Your task to perform on an android device: Go to notification settings Image 0: 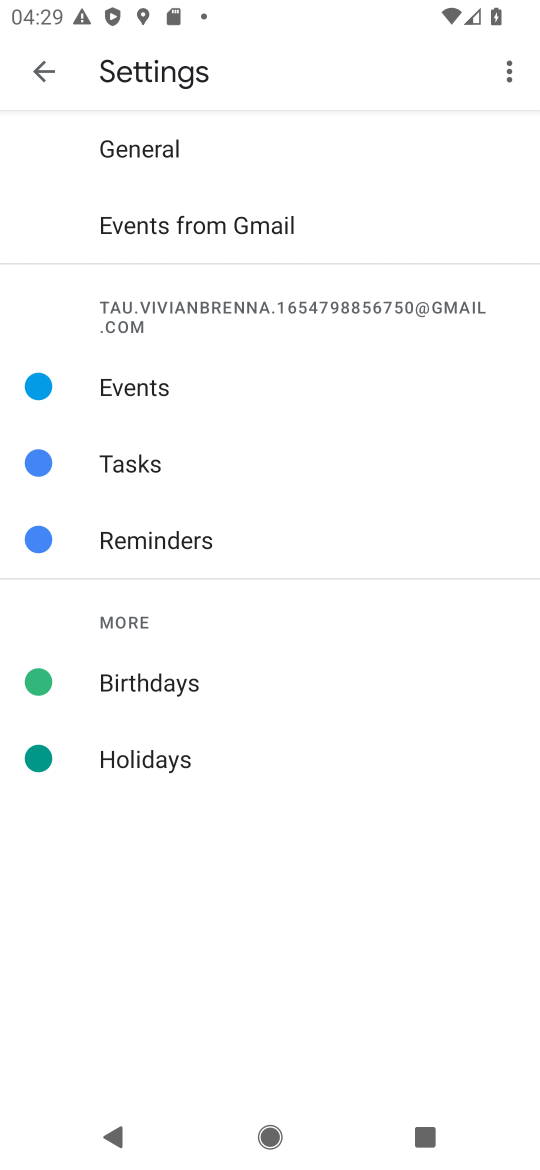
Step 0: press home button
Your task to perform on an android device: Go to notification settings Image 1: 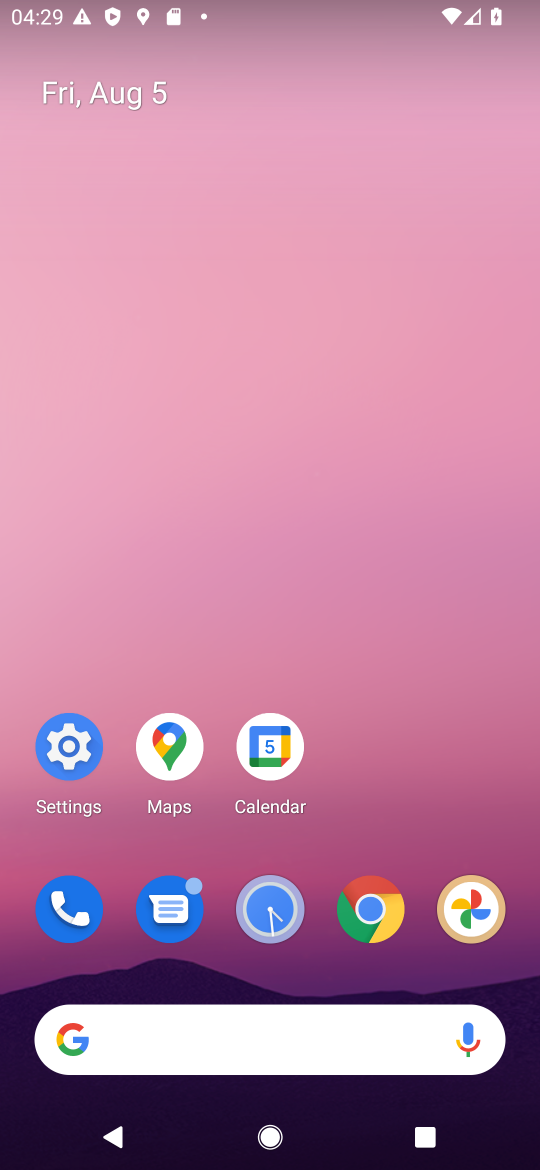
Step 1: click (62, 741)
Your task to perform on an android device: Go to notification settings Image 2: 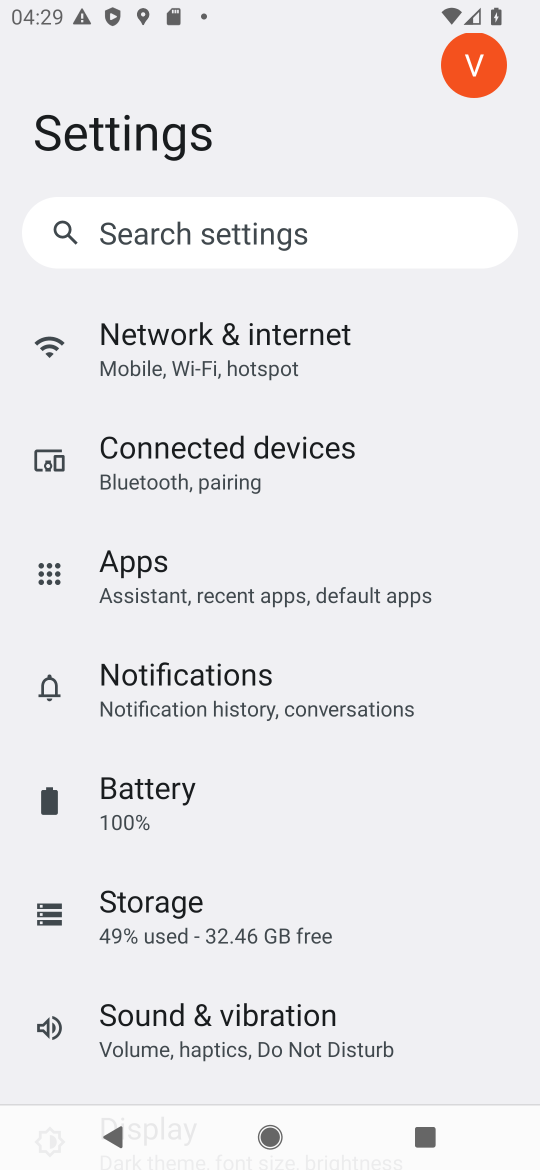
Step 2: click (235, 671)
Your task to perform on an android device: Go to notification settings Image 3: 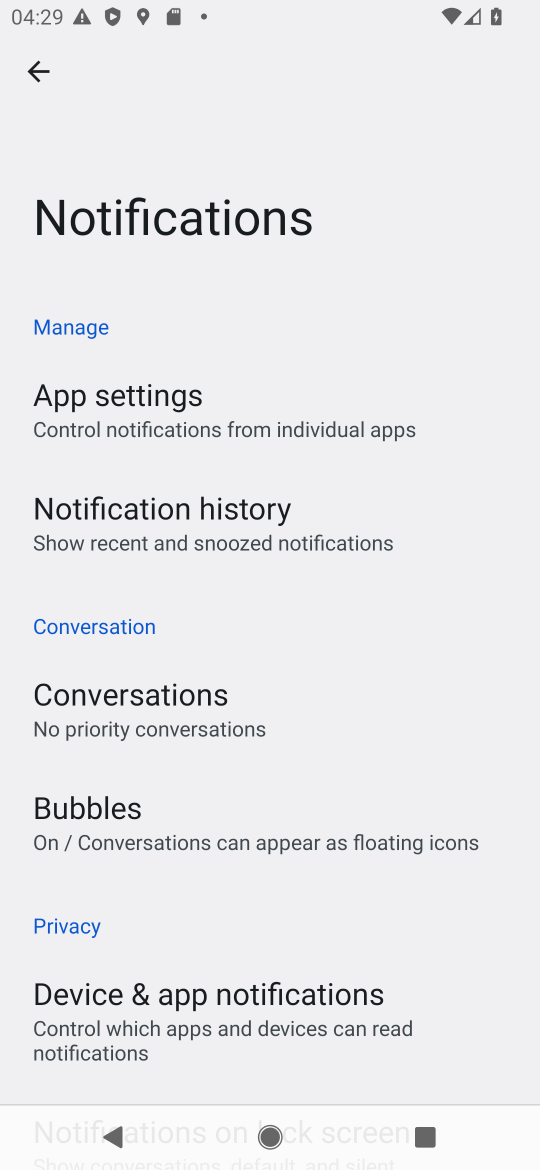
Step 3: task complete